Your task to perform on an android device: Open Youtube and go to "Your channel" Image 0: 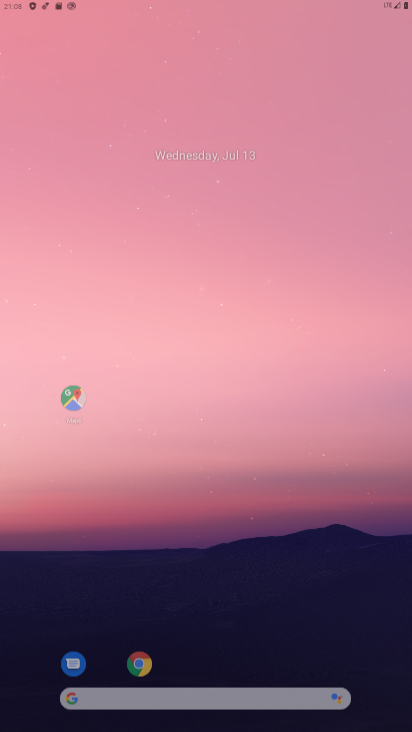
Step 0: click (264, 400)
Your task to perform on an android device: Open Youtube and go to "Your channel" Image 1: 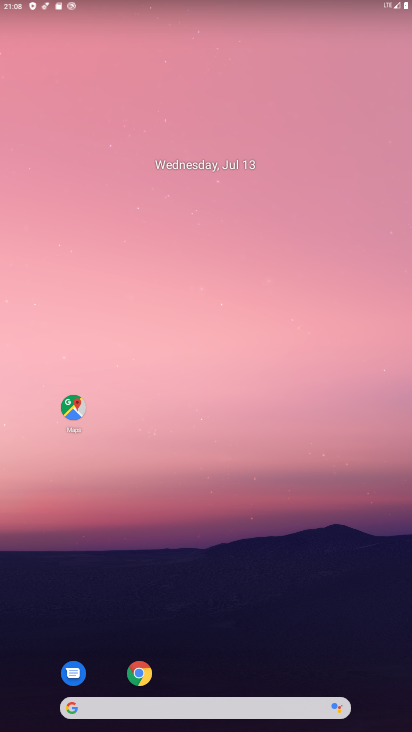
Step 1: press home button
Your task to perform on an android device: Open Youtube and go to "Your channel" Image 2: 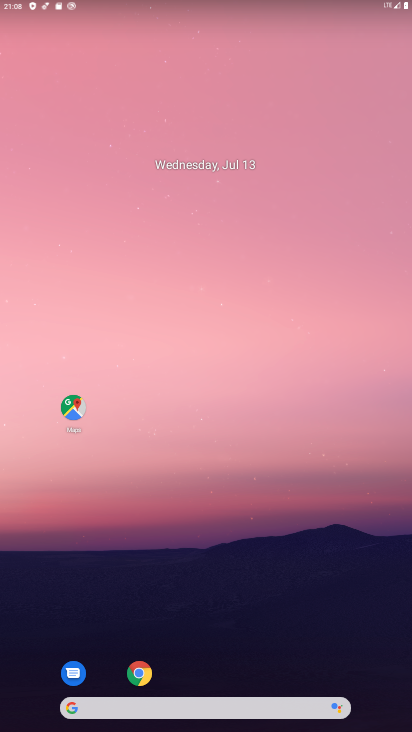
Step 2: drag from (163, 587) to (196, 178)
Your task to perform on an android device: Open Youtube and go to "Your channel" Image 3: 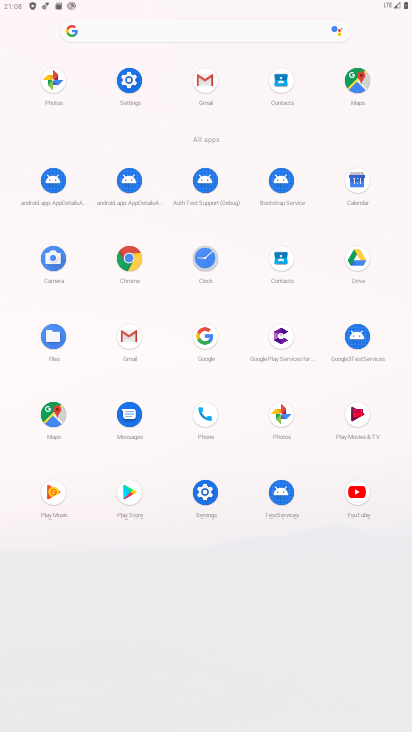
Step 3: click (358, 501)
Your task to perform on an android device: Open Youtube and go to "Your channel" Image 4: 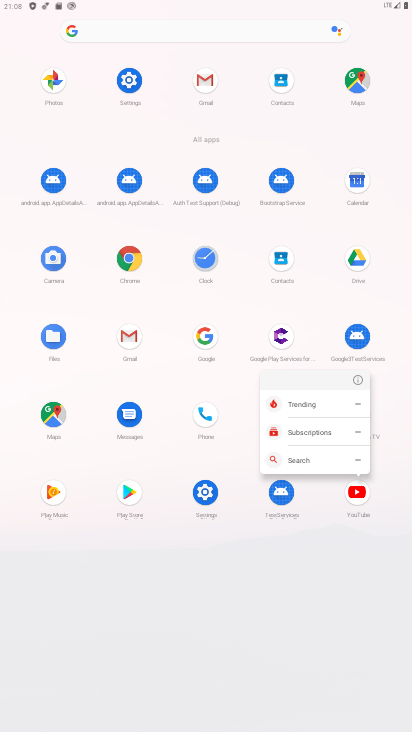
Step 4: click (360, 379)
Your task to perform on an android device: Open Youtube and go to "Your channel" Image 5: 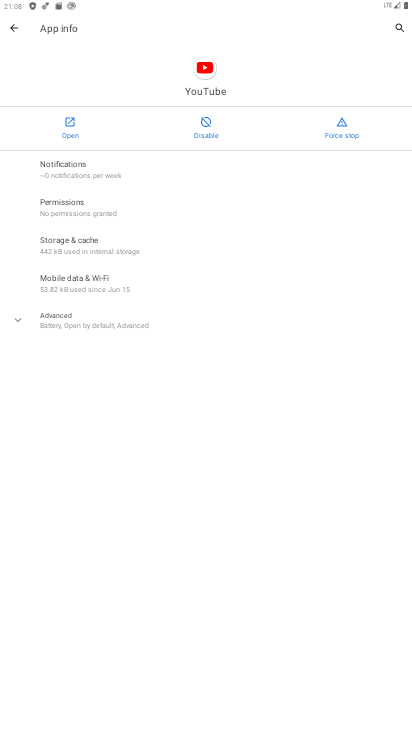
Step 5: drag from (176, 551) to (172, 277)
Your task to perform on an android device: Open Youtube and go to "Your channel" Image 6: 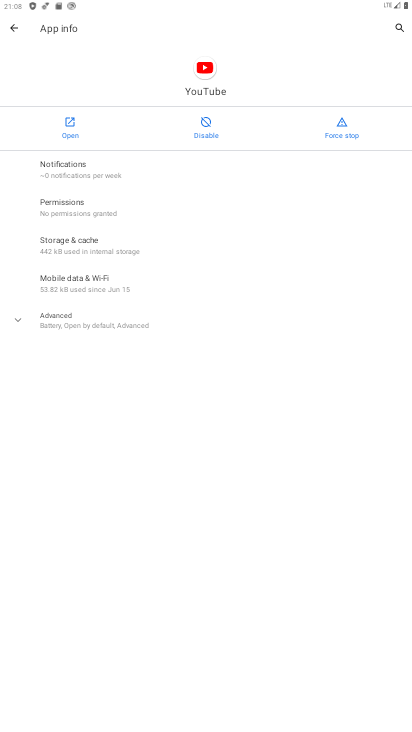
Step 6: click (70, 128)
Your task to perform on an android device: Open Youtube and go to "Your channel" Image 7: 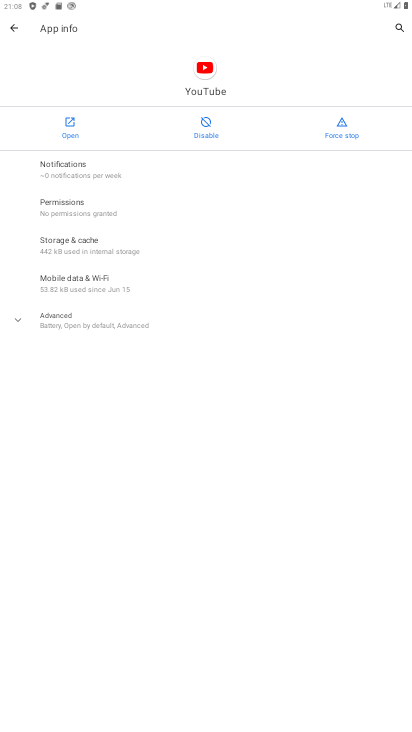
Step 7: click (70, 127)
Your task to perform on an android device: Open Youtube and go to "Your channel" Image 8: 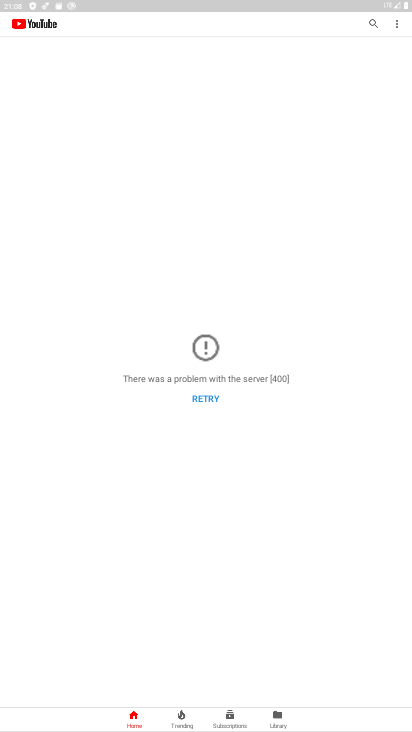
Step 8: drag from (195, 600) to (207, 441)
Your task to perform on an android device: Open Youtube and go to "Your channel" Image 9: 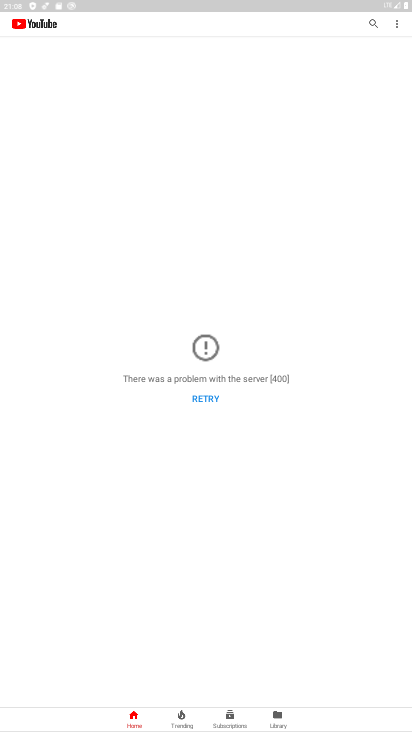
Step 9: click (203, 400)
Your task to perform on an android device: Open Youtube and go to "Your channel" Image 10: 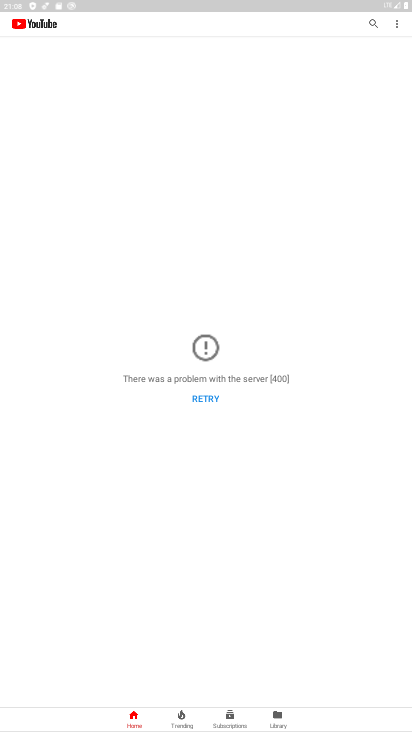
Step 10: task complete